Your task to perform on an android device: Go to network settings Image 0: 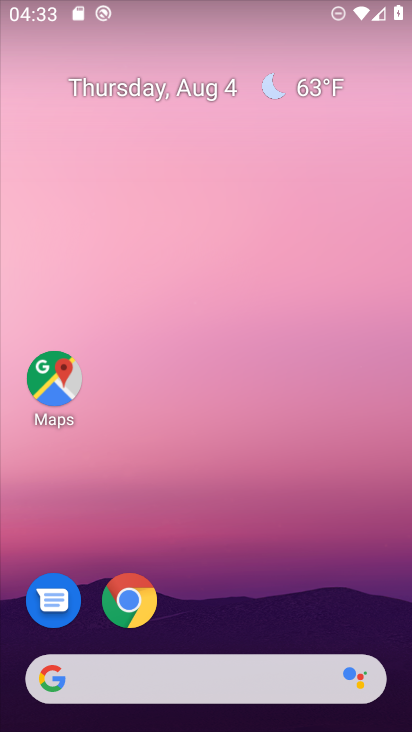
Step 0: drag from (275, 619) to (274, 152)
Your task to perform on an android device: Go to network settings Image 1: 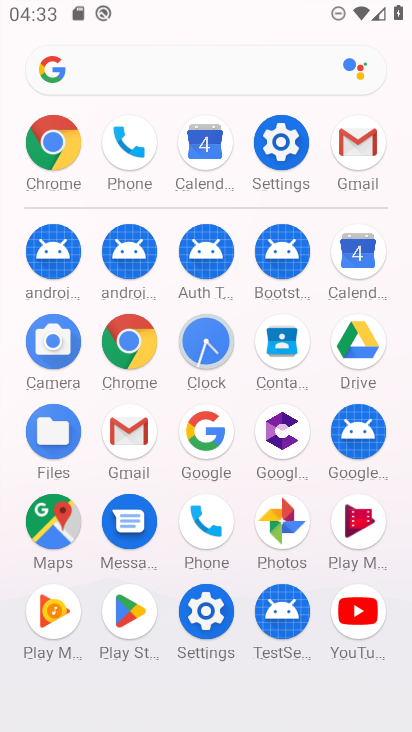
Step 1: click (272, 145)
Your task to perform on an android device: Go to network settings Image 2: 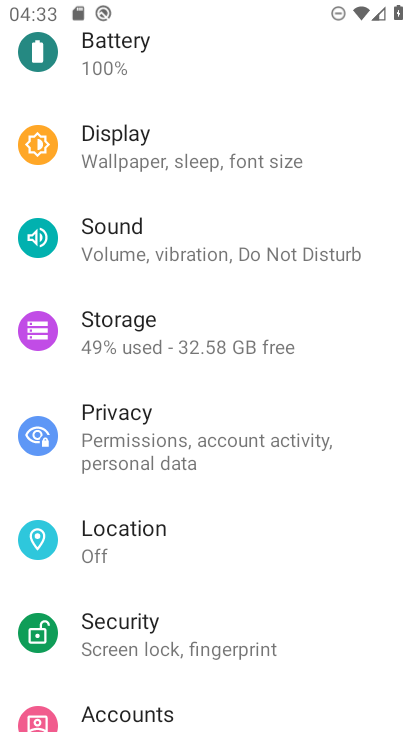
Step 2: drag from (220, 119) to (227, 523)
Your task to perform on an android device: Go to network settings Image 3: 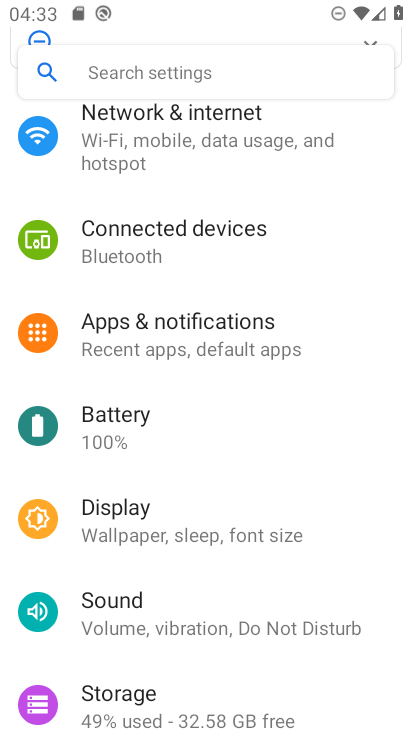
Step 3: click (161, 145)
Your task to perform on an android device: Go to network settings Image 4: 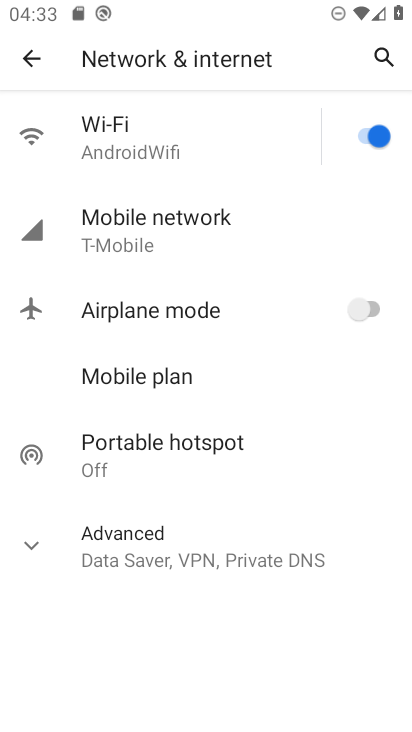
Step 4: click (198, 568)
Your task to perform on an android device: Go to network settings Image 5: 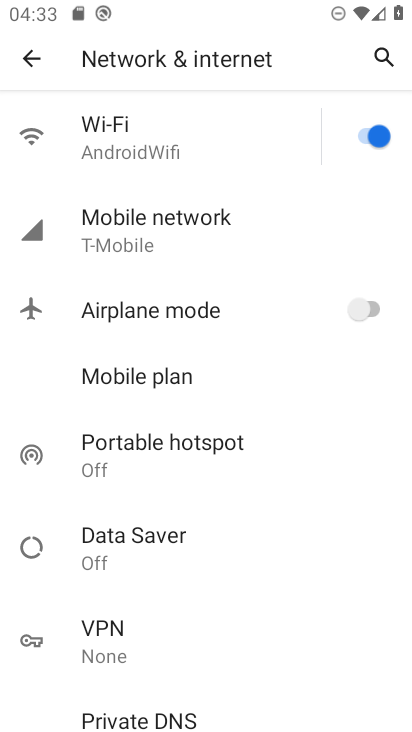
Step 5: task complete